Your task to perform on an android device: change text size in settings app Image 0: 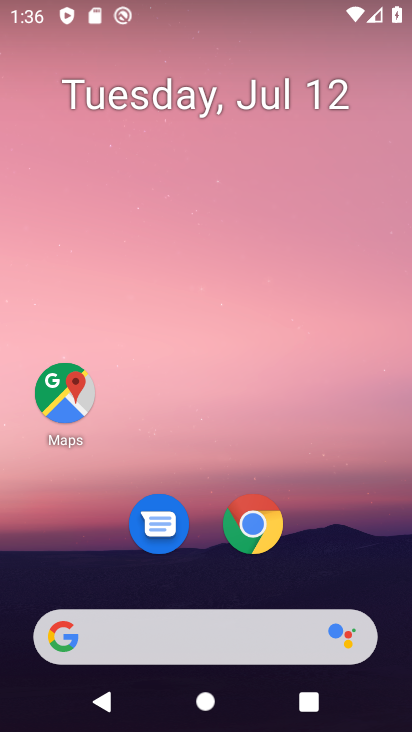
Step 0: drag from (338, 454) to (322, 17)
Your task to perform on an android device: change text size in settings app Image 1: 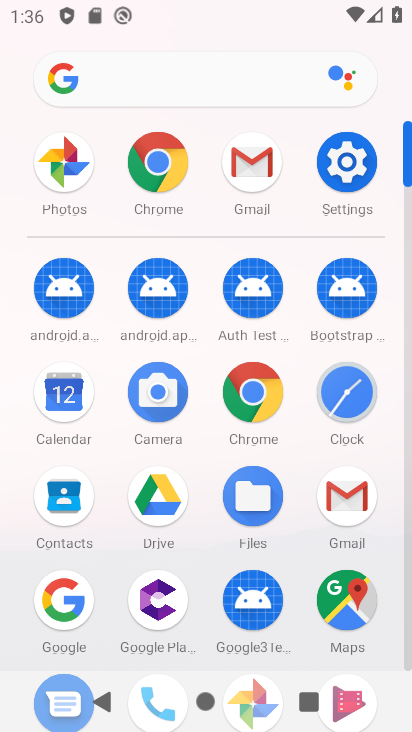
Step 1: click (348, 162)
Your task to perform on an android device: change text size in settings app Image 2: 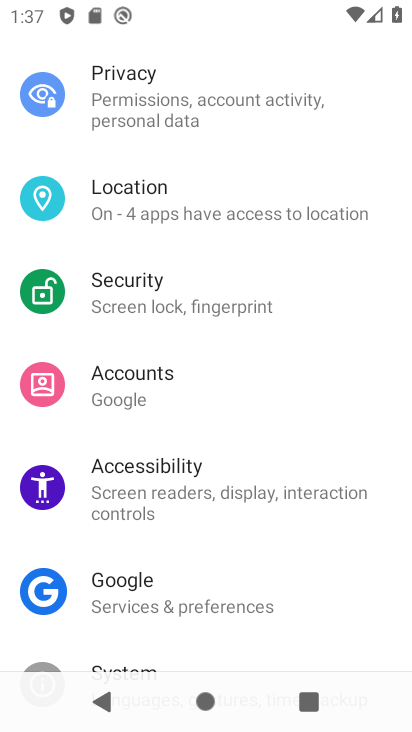
Step 2: drag from (234, 164) to (220, 628)
Your task to perform on an android device: change text size in settings app Image 3: 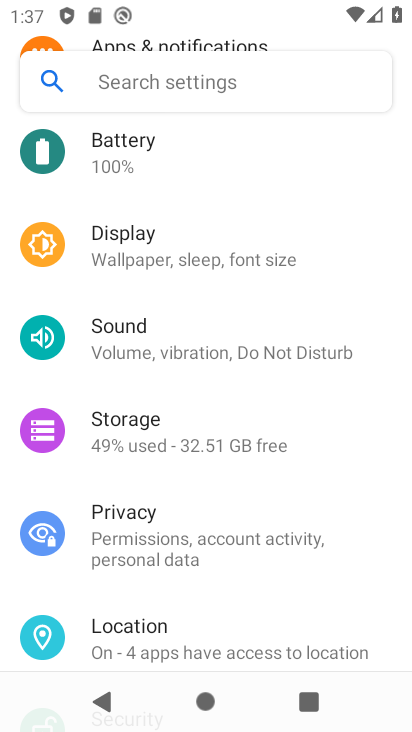
Step 3: click (229, 247)
Your task to perform on an android device: change text size in settings app Image 4: 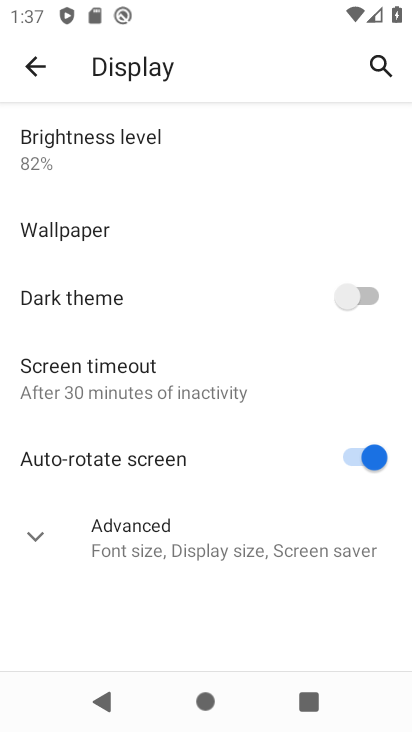
Step 4: click (37, 527)
Your task to perform on an android device: change text size in settings app Image 5: 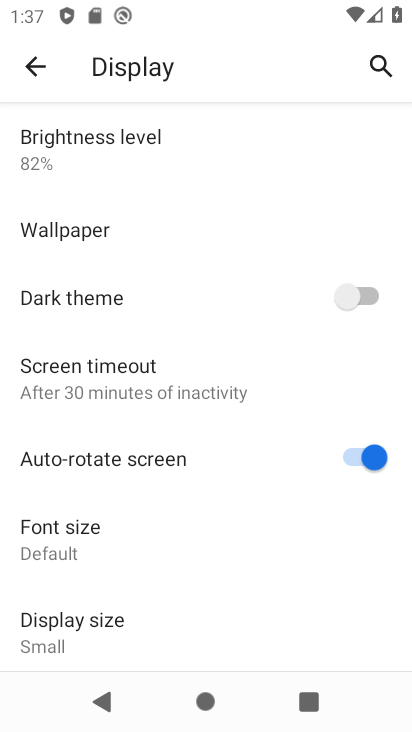
Step 5: click (74, 552)
Your task to perform on an android device: change text size in settings app Image 6: 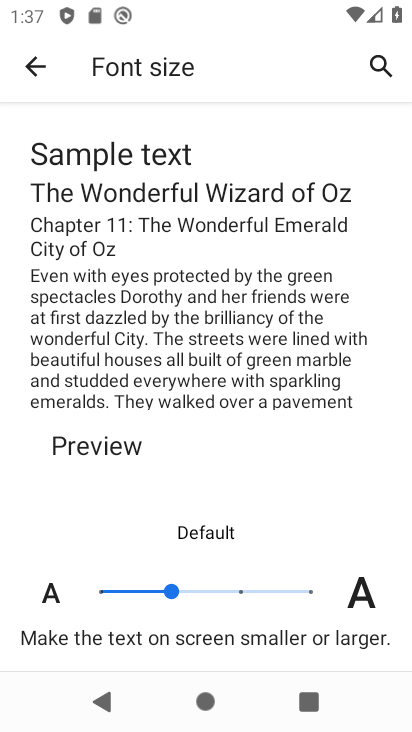
Step 6: click (103, 589)
Your task to perform on an android device: change text size in settings app Image 7: 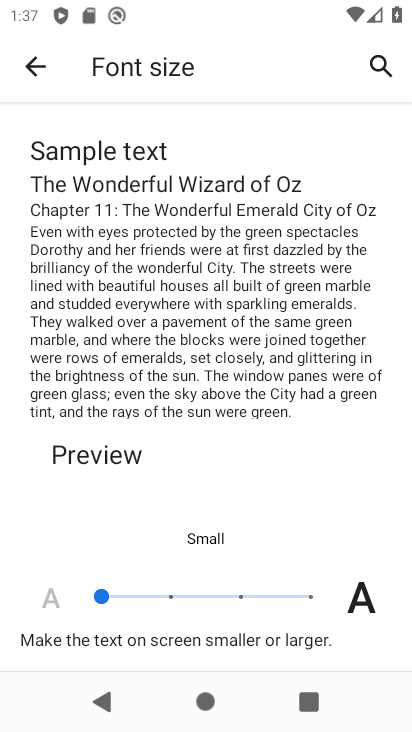
Step 7: click (39, 66)
Your task to perform on an android device: change text size in settings app Image 8: 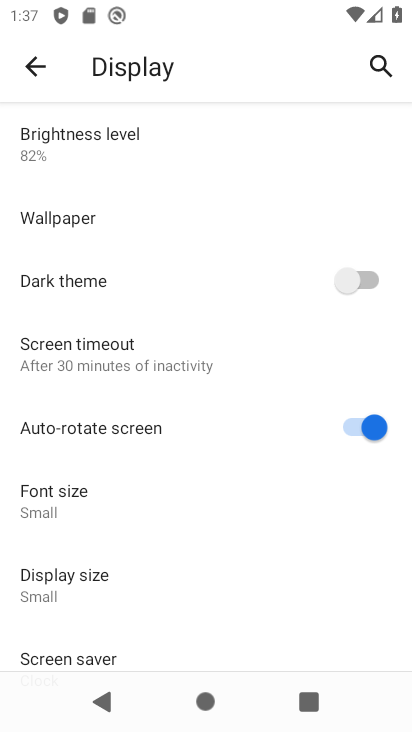
Step 8: task complete